Your task to perform on an android device: check storage Image 0: 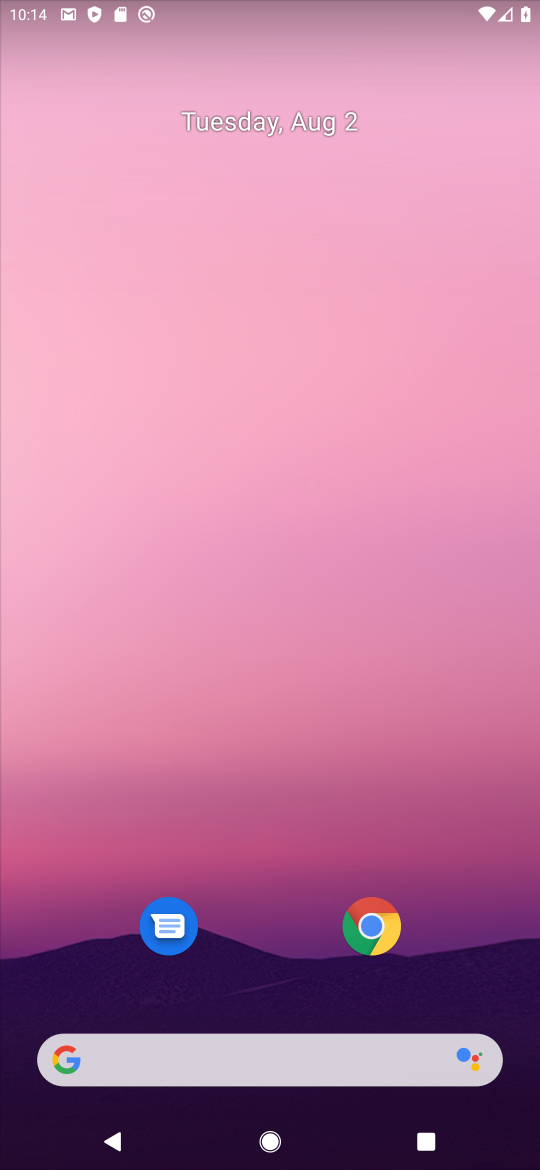
Step 0: drag from (463, 991) to (437, 240)
Your task to perform on an android device: check storage Image 1: 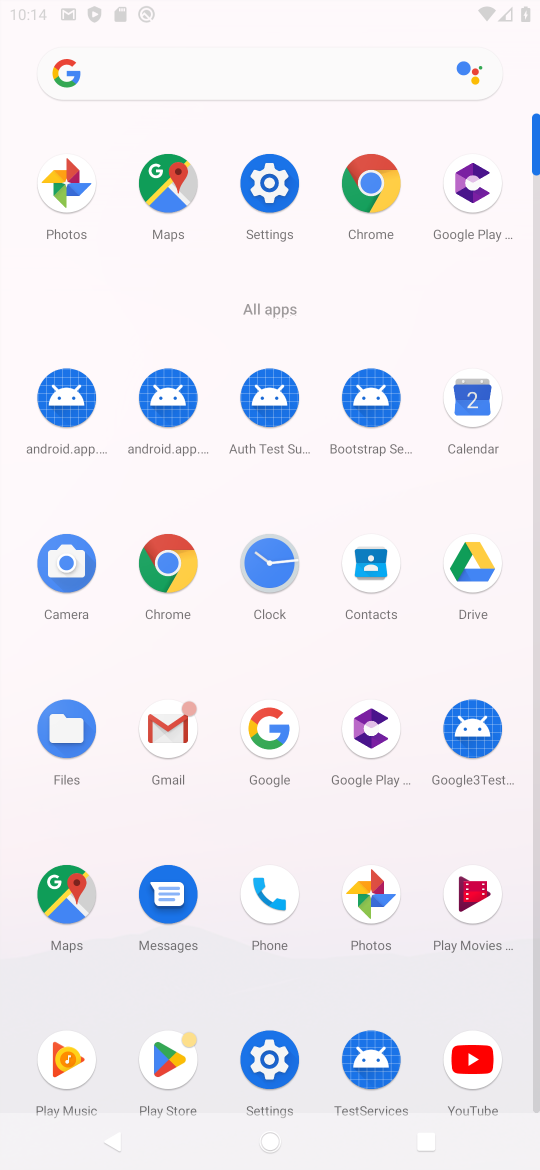
Step 1: click (271, 197)
Your task to perform on an android device: check storage Image 2: 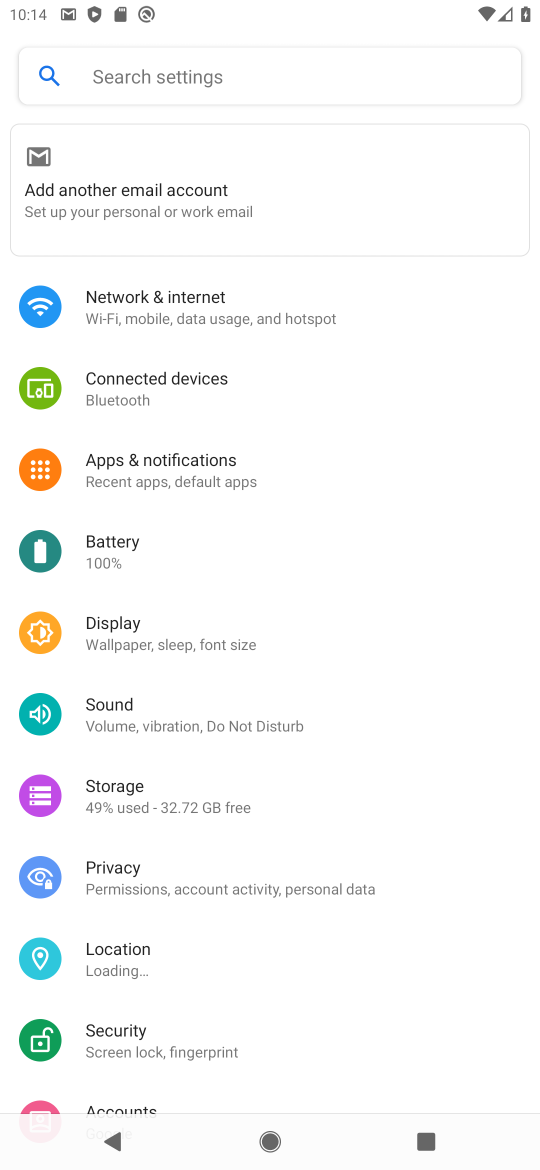
Step 2: click (245, 797)
Your task to perform on an android device: check storage Image 3: 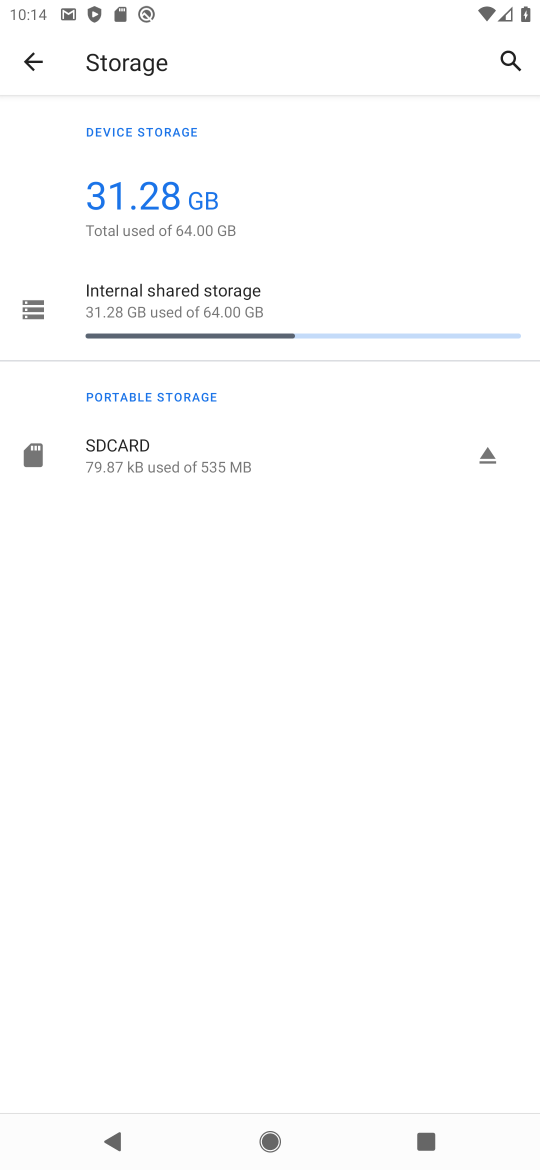
Step 3: task complete